Your task to perform on an android device: Open Youtube and go to the subscriptions tab Image 0: 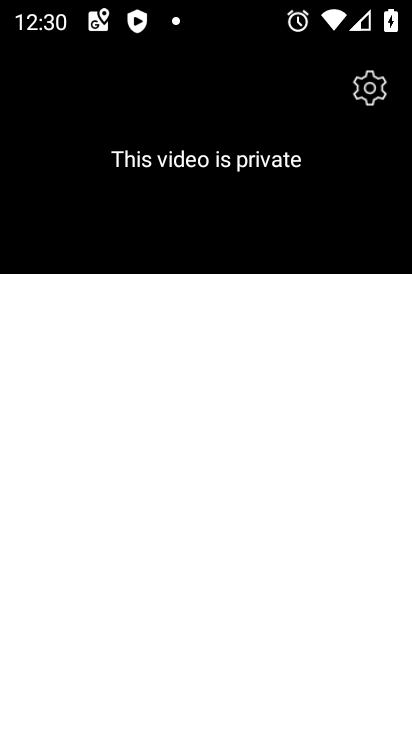
Step 0: press home button
Your task to perform on an android device: Open Youtube and go to the subscriptions tab Image 1: 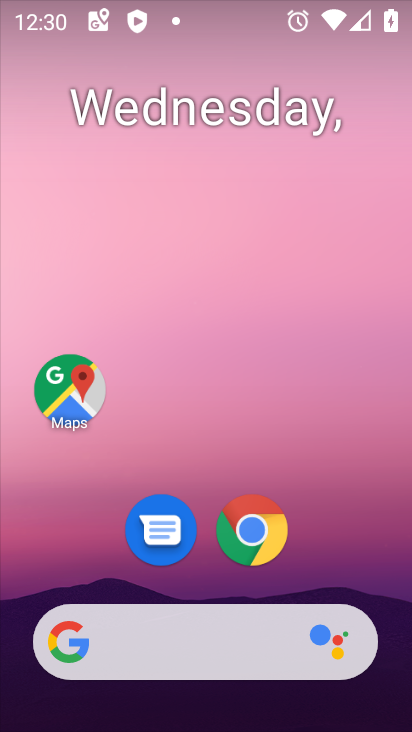
Step 1: drag from (198, 569) to (259, 14)
Your task to perform on an android device: Open Youtube and go to the subscriptions tab Image 2: 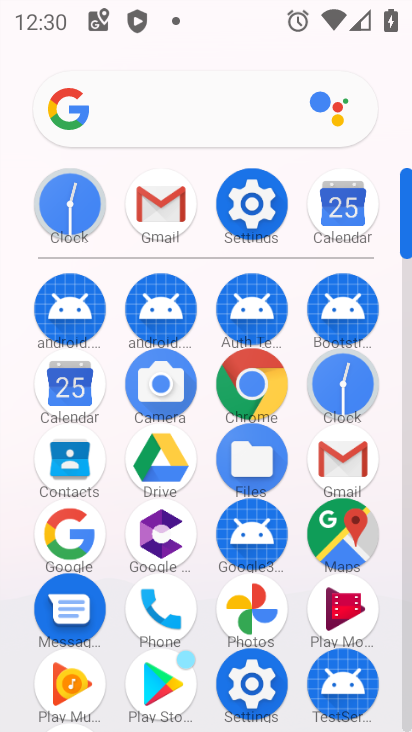
Step 2: drag from (208, 562) to (265, 254)
Your task to perform on an android device: Open Youtube and go to the subscriptions tab Image 3: 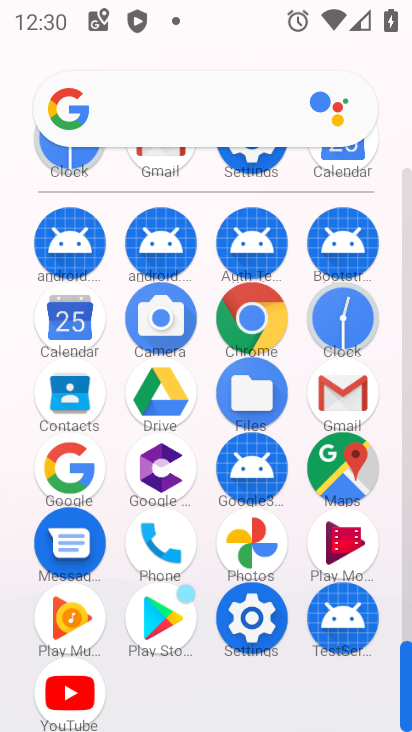
Step 3: click (71, 669)
Your task to perform on an android device: Open Youtube and go to the subscriptions tab Image 4: 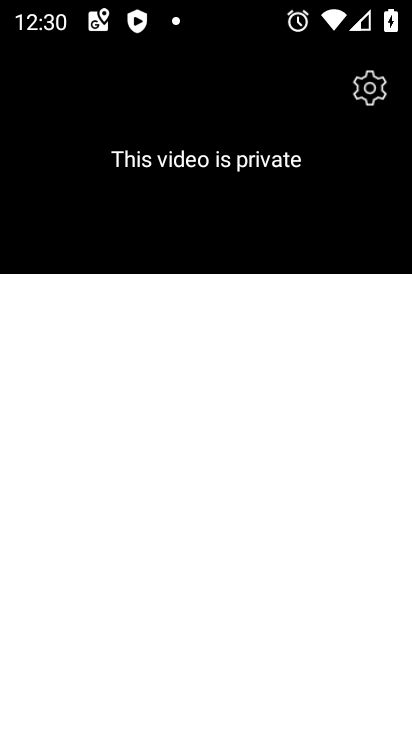
Step 4: task complete